Your task to perform on an android device: open app "LinkedIn" (install if not already installed), go to login, and select forgot password Image 0: 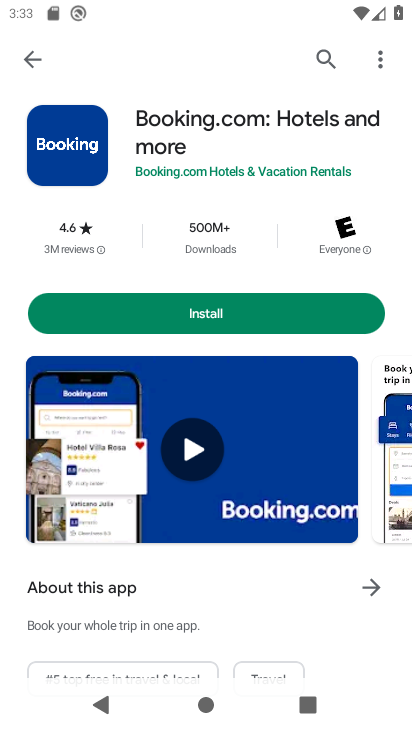
Step 0: click (321, 57)
Your task to perform on an android device: open app "LinkedIn" (install if not already installed), go to login, and select forgot password Image 1: 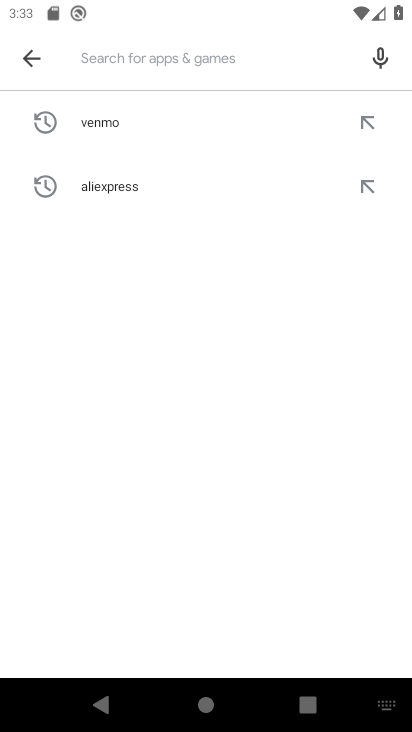
Step 1: type "LinkedIn"
Your task to perform on an android device: open app "LinkedIn" (install if not already installed), go to login, and select forgot password Image 2: 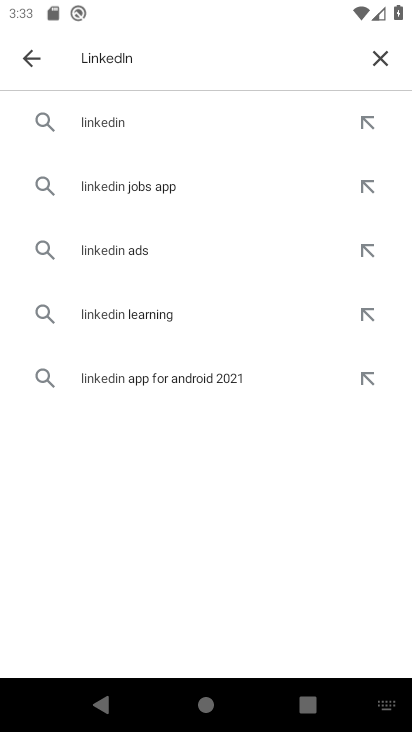
Step 2: click (96, 127)
Your task to perform on an android device: open app "LinkedIn" (install if not already installed), go to login, and select forgot password Image 3: 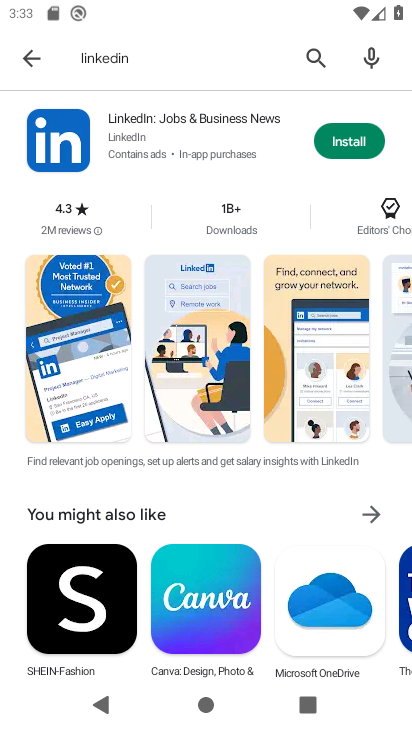
Step 3: click (136, 118)
Your task to perform on an android device: open app "LinkedIn" (install if not already installed), go to login, and select forgot password Image 4: 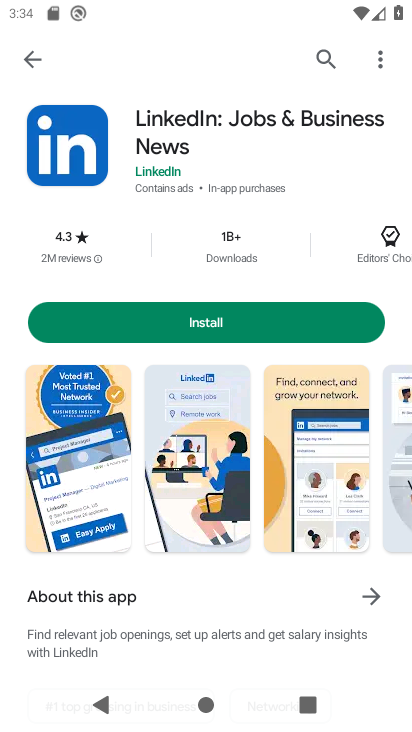
Step 4: click (206, 325)
Your task to perform on an android device: open app "LinkedIn" (install if not already installed), go to login, and select forgot password Image 5: 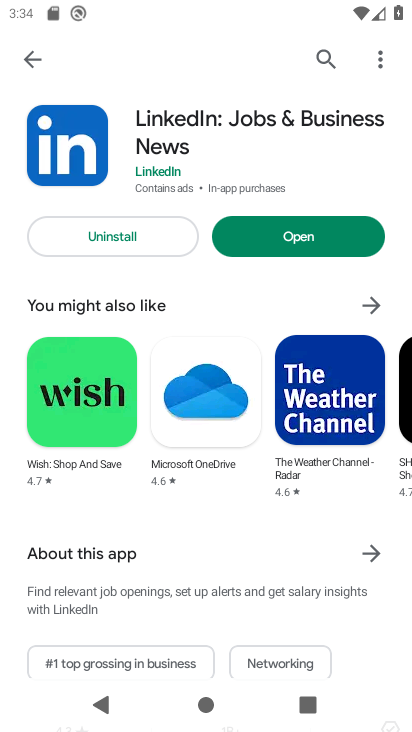
Step 5: click (295, 234)
Your task to perform on an android device: open app "LinkedIn" (install if not already installed), go to login, and select forgot password Image 6: 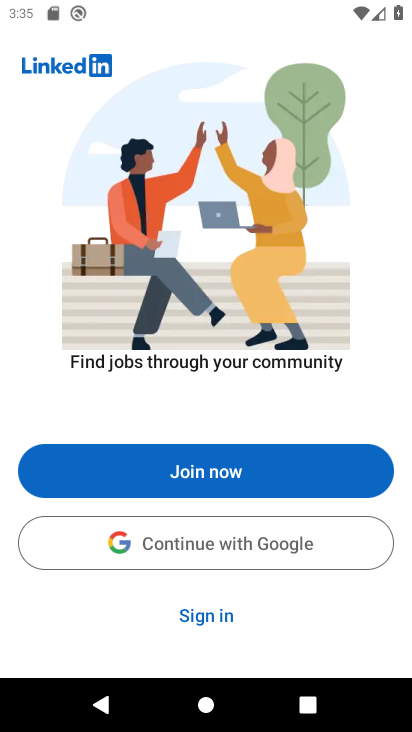
Step 6: click (206, 615)
Your task to perform on an android device: open app "LinkedIn" (install if not already installed), go to login, and select forgot password Image 7: 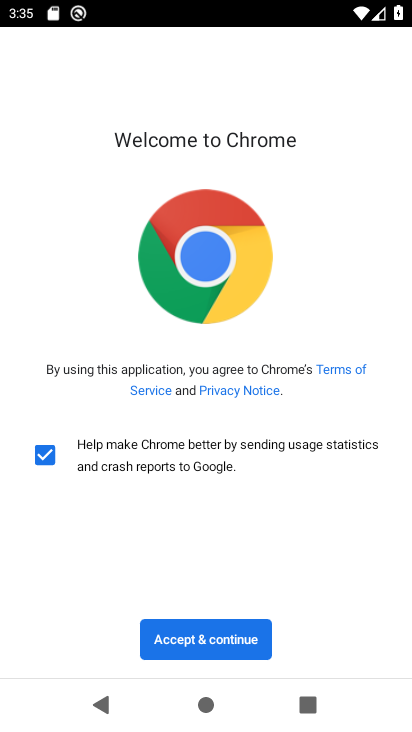
Step 7: click (208, 641)
Your task to perform on an android device: open app "LinkedIn" (install if not already installed), go to login, and select forgot password Image 8: 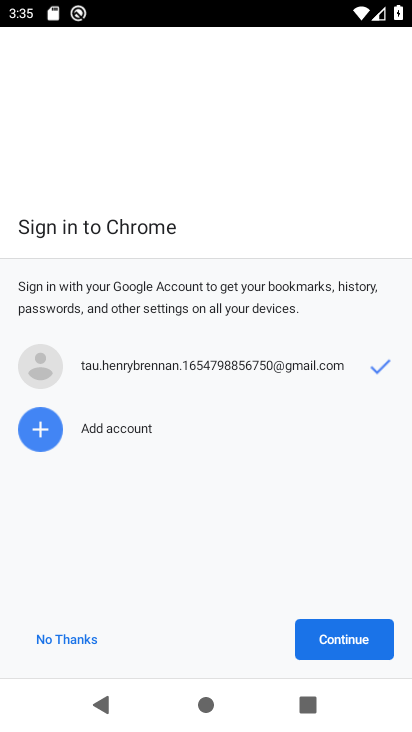
Step 8: click (334, 633)
Your task to perform on an android device: open app "LinkedIn" (install if not already installed), go to login, and select forgot password Image 9: 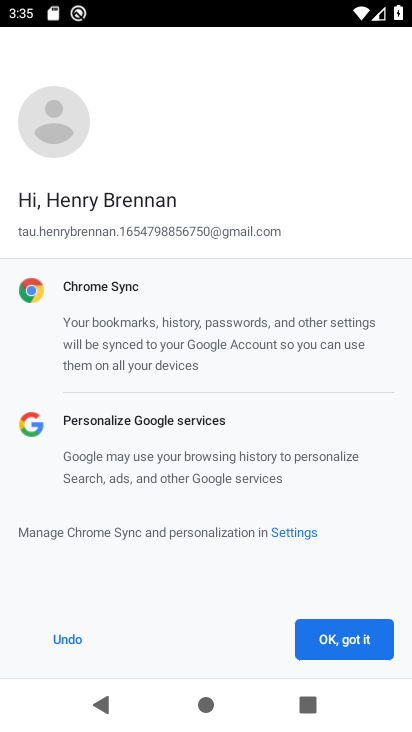
Step 9: click (344, 639)
Your task to perform on an android device: open app "LinkedIn" (install if not already installed), go to login, and select forgot password Image 10: 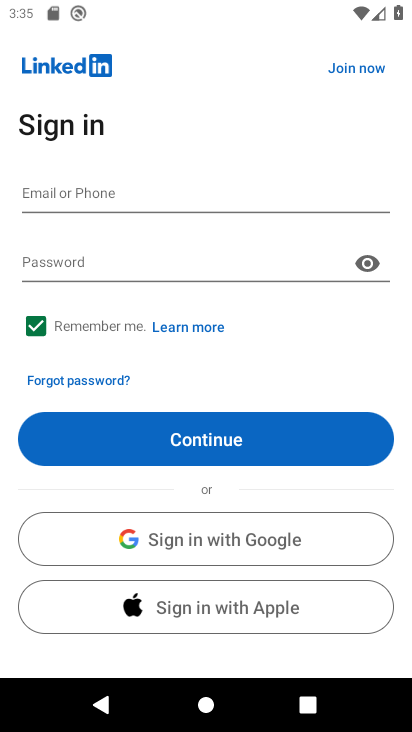
Step 10: click (74, 382)
Your task to perform on an android device: open app "LinkedIn" (install if not already installed), go to login, and select forgot password Image 11: 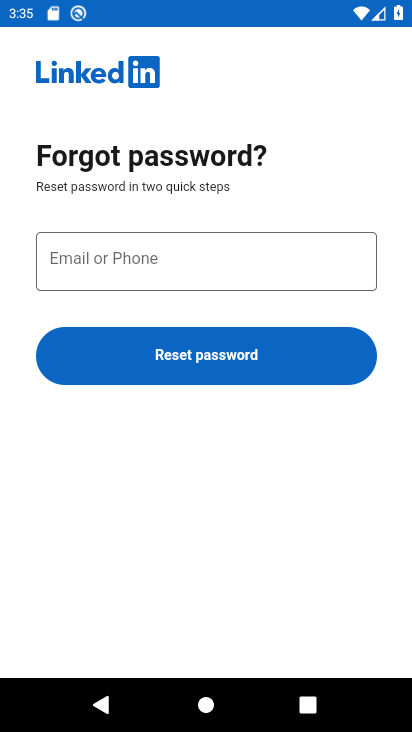
Step 11: task complete